Your task to perform on an android device: change text size in settings app Image 0: 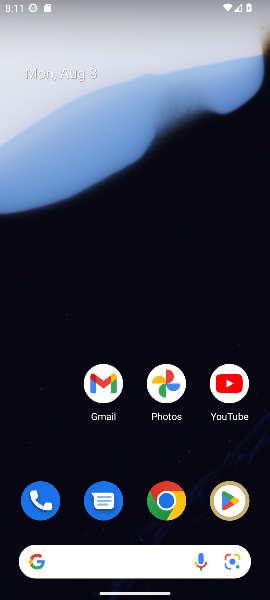
Step 0: drag from (200, 356) to (156, 9)
Your task to perform on an android device: change text size in settings app Image 1: 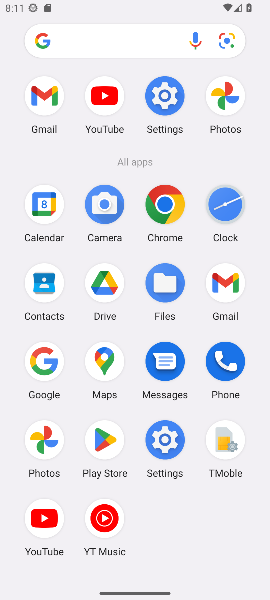
Step 1: click (170, 108)
Your task to perform on an android device: change text size in settings app Image 2: 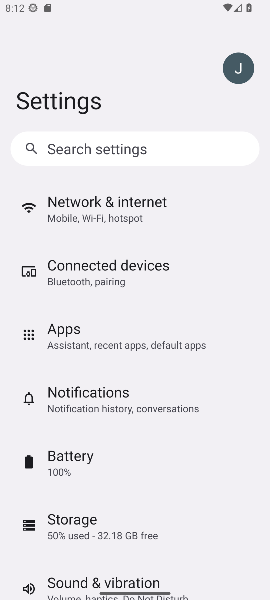
Step 2: drag from (171, 559) to (115, 172)
Your task to perform on an android device: change text size in settings app Image 3: 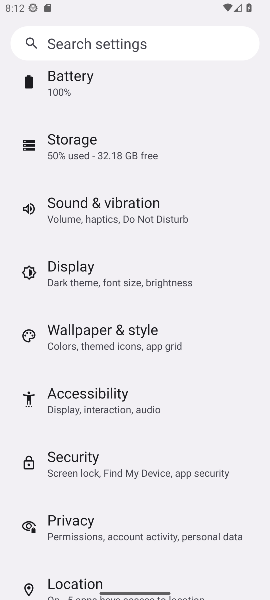
Step 3: click (153, 263)
Your task to perform on an android device: change text size in settings app Image 4: 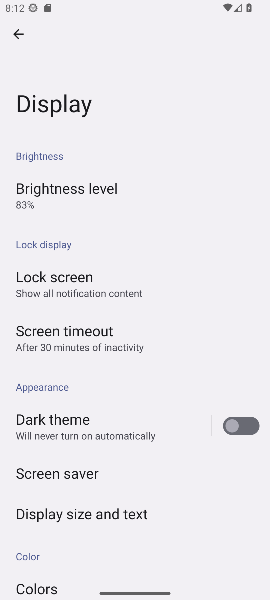
Step 4: click (137, 518)
Your task to perform on an android device: change text size in settings app Image 5: 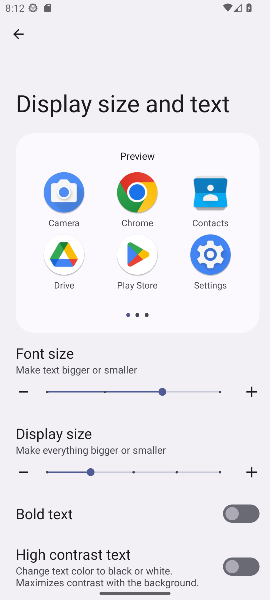
Step 5: drag from (137, 518) to (120, 350)
Your task to perform on an android device: change text size in settings app Image 6: 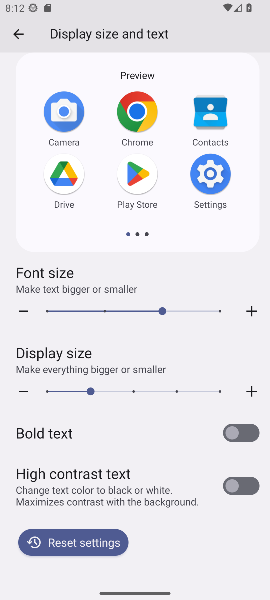
Step 6: click (207, 304)
Your task to perform on an android device: change text size in settings app Image 7: 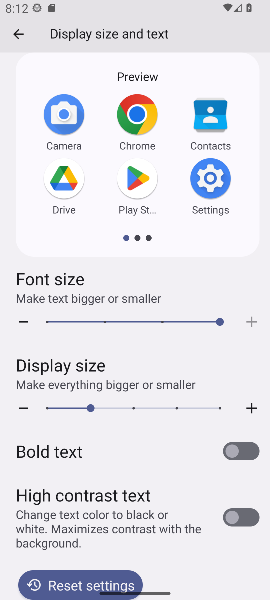
Step 7: task complete